Your task to perform on an android device: Open display settings Image 0: 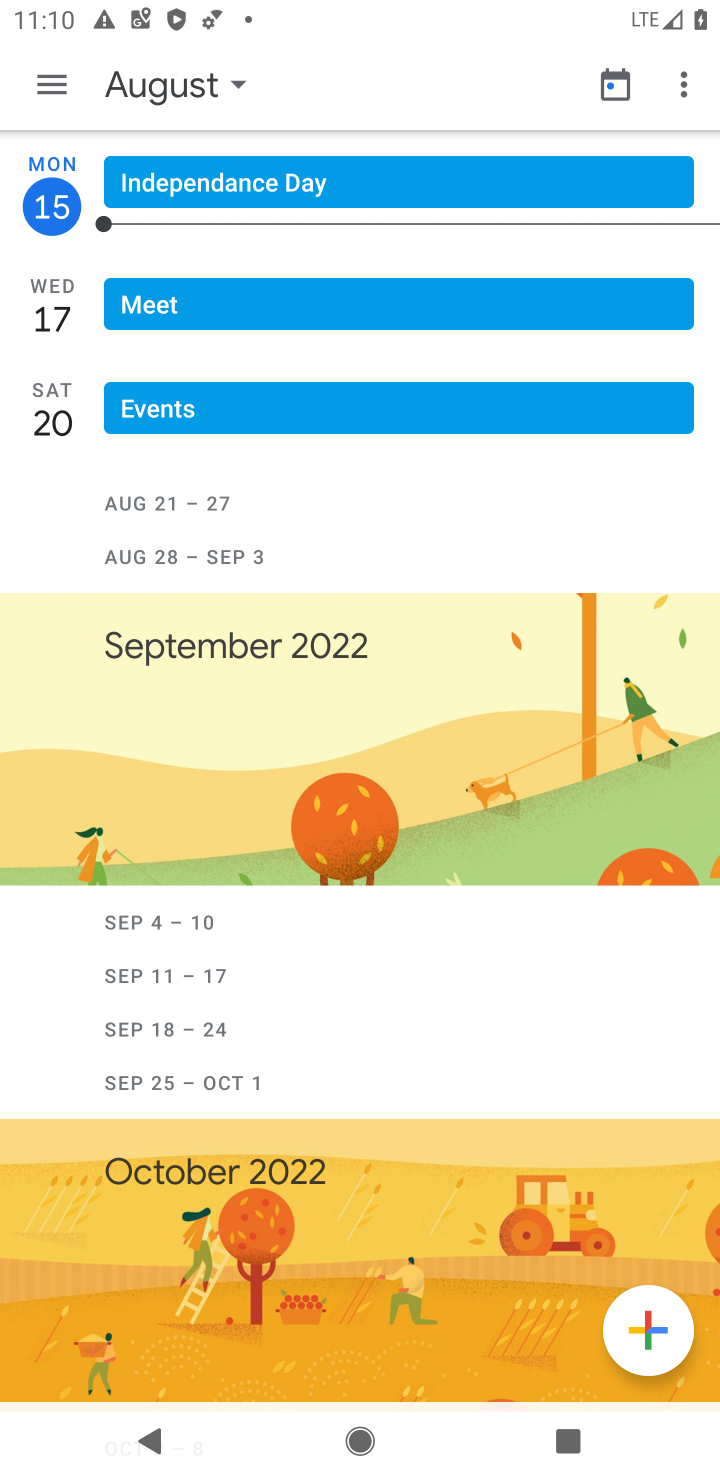
Step 0: press home button
Your task to perform on an android device: Open display settings Image 1: 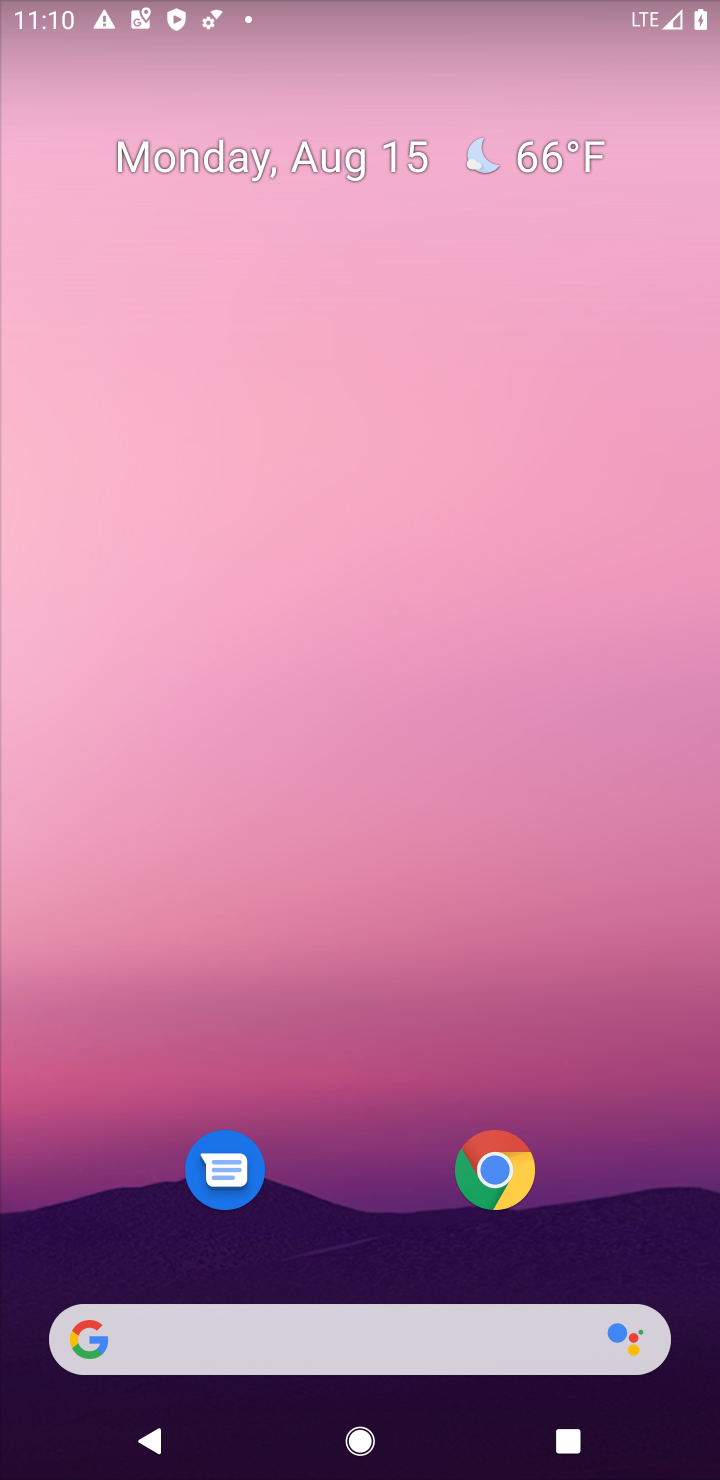
Step 1: press home button
Your task to perform on an android device: Open display settings Image 2: 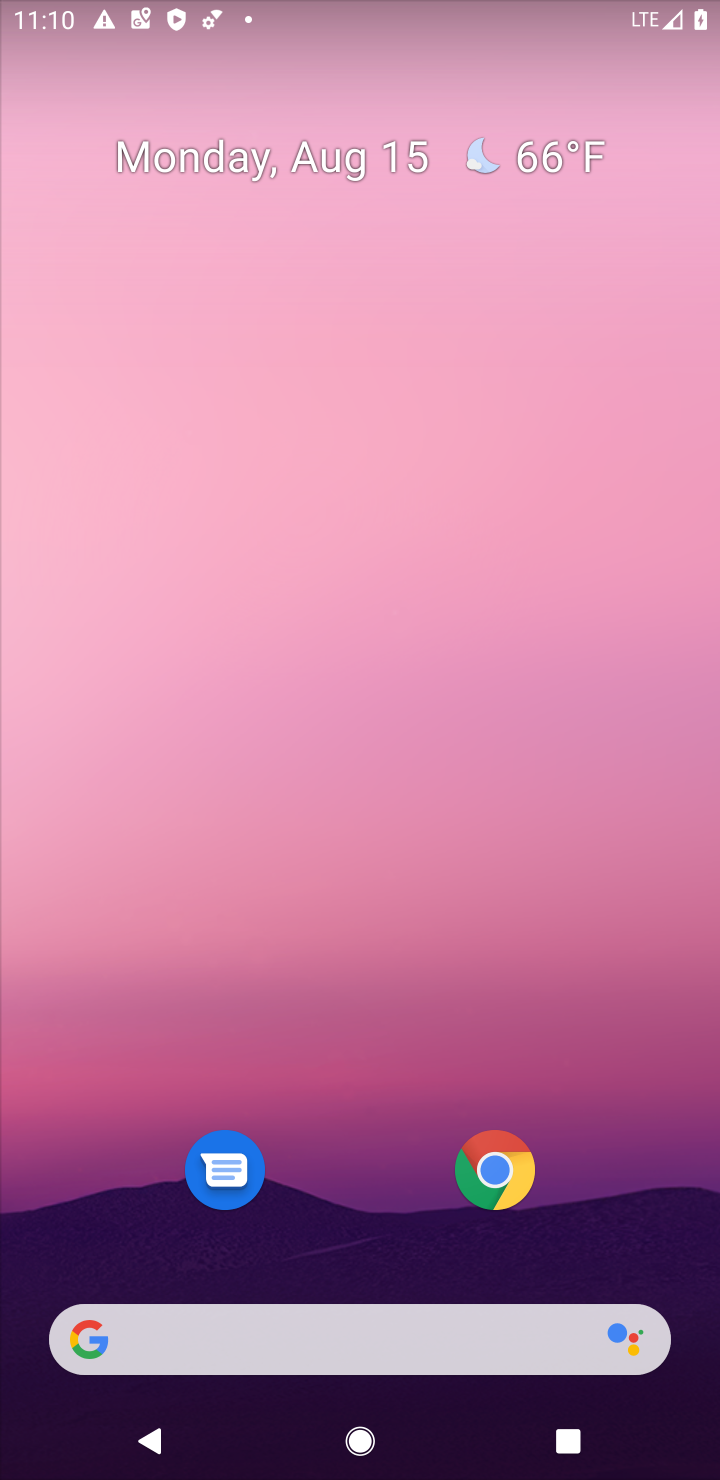
Step 2: drag from (381, 1258) to (395, 47)
Your task to perform on an android device: Open display settings Image 3: 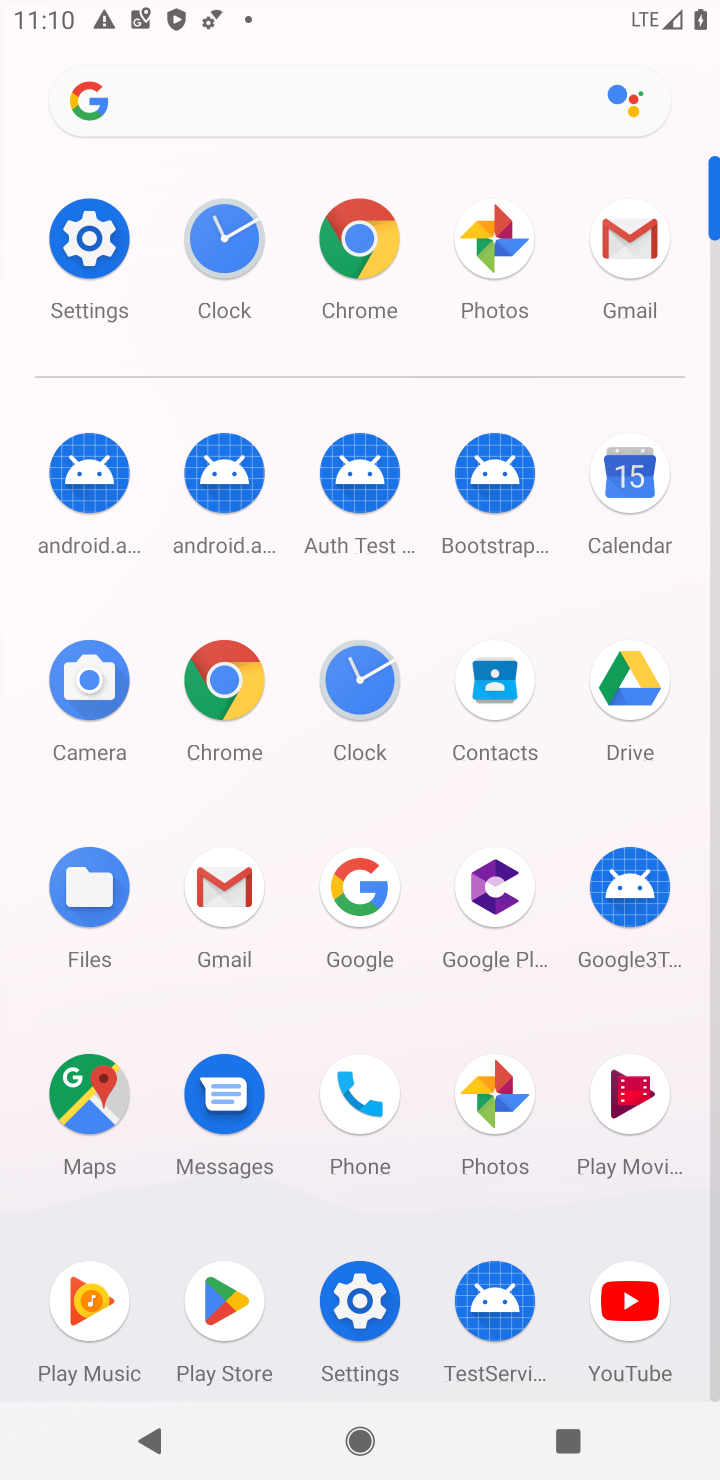
Step 3: click (355, 1291)
Your task to perform on an android device: Open display settings Image 4: 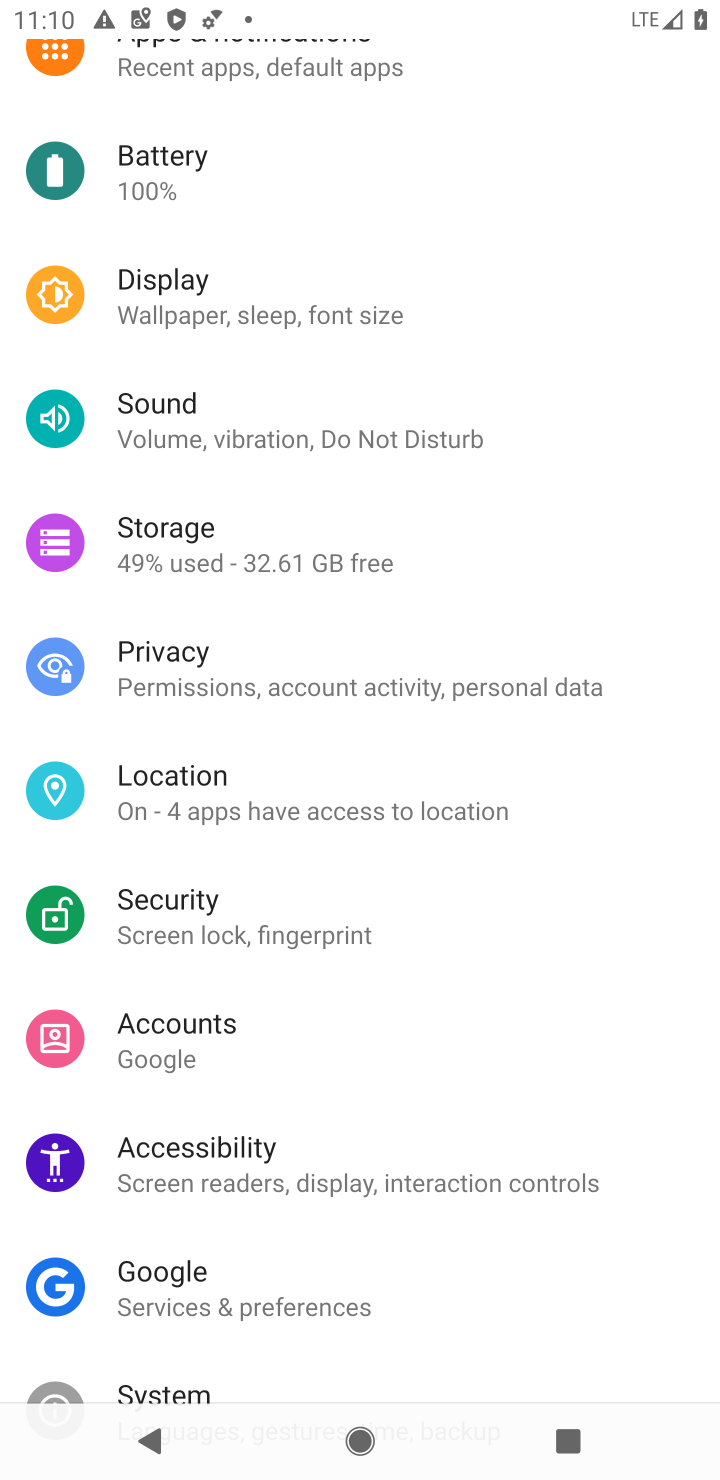
Step 4: click (227, 280)
Your task to perform on an android device: Open display settings Image 5: 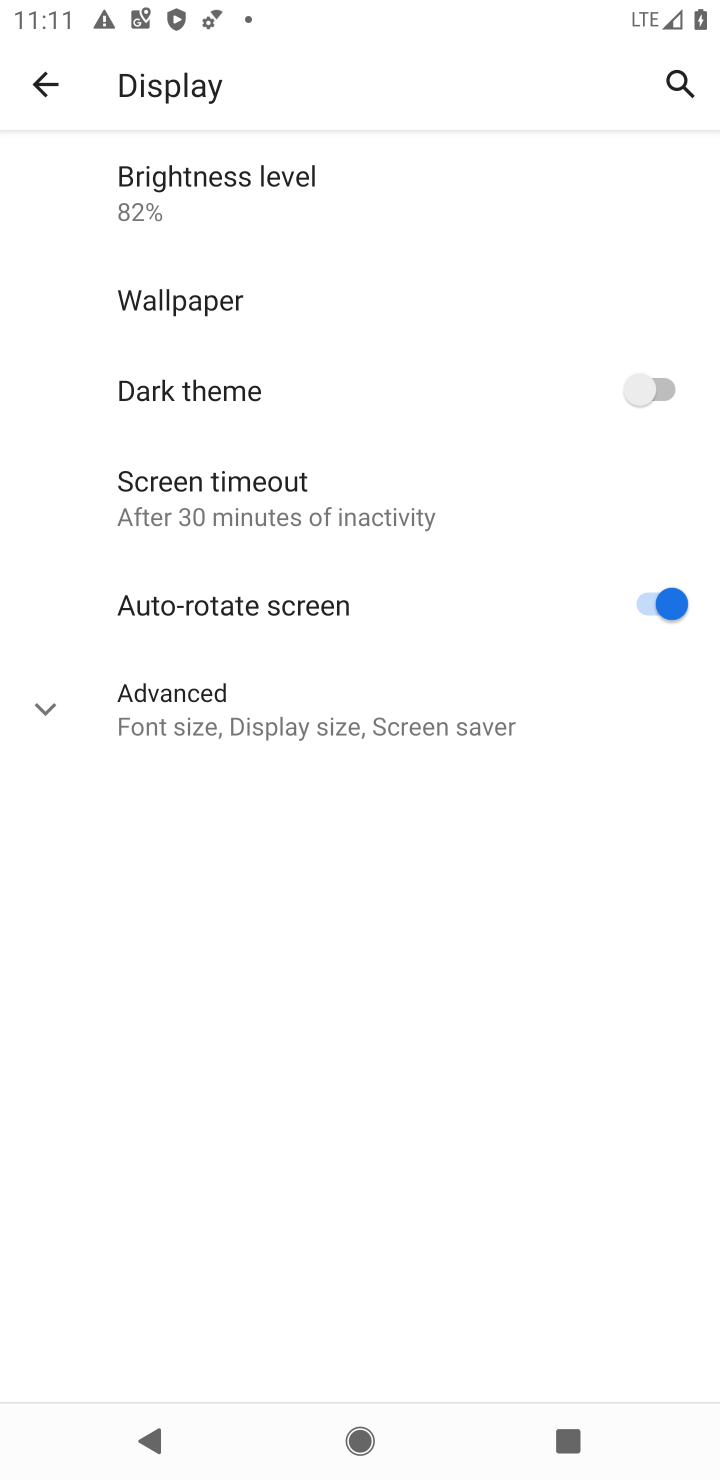
Step 5: click (44, 700)
Your task to perform on an android device: Open display settings Image 6: 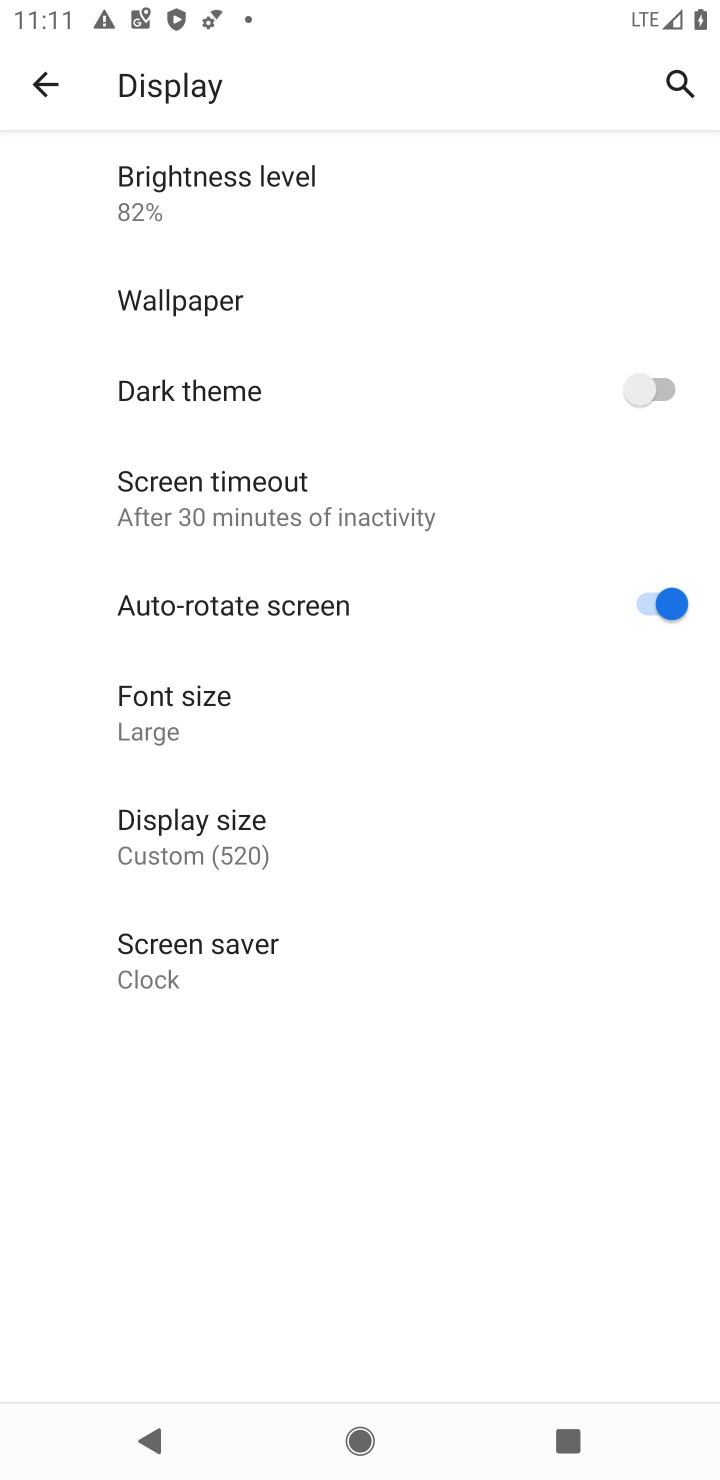
Step 6: task complete